Your task to perform on an android device: toggle data saver in the chrome app Image 0: 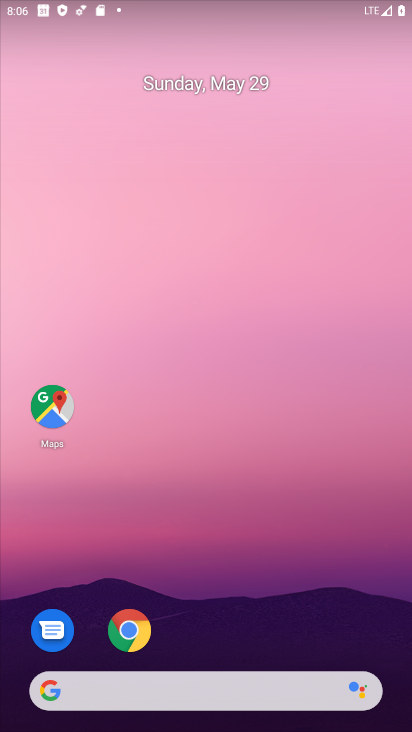
Step 0: click (133, 623)
Your task to perform on an android device: toggle data saver in the chrome app Image 1: 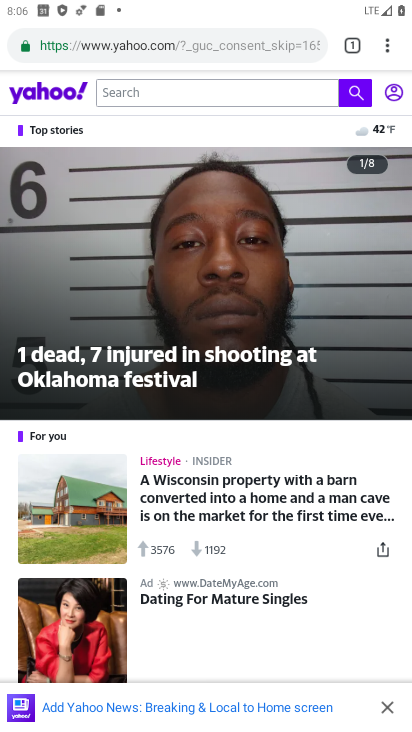
Step 1: click (387, 49)
Your task to perform on an android device: toggle data saver in the chrome app Image 2: 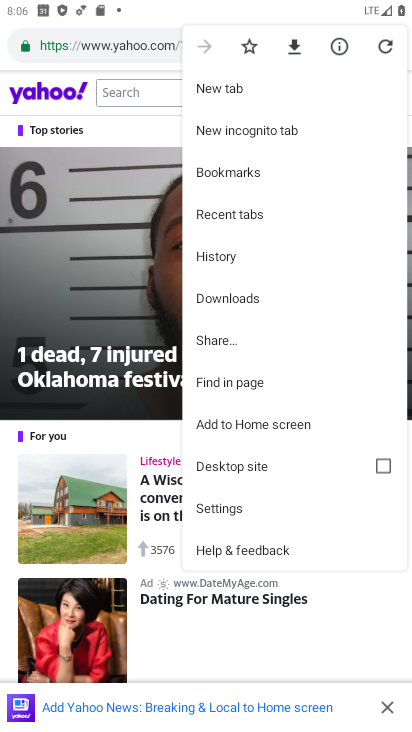
Step 2: click (206, 501)
Your task to perform on an android device: toggle data saver in the chrome app Image 3: 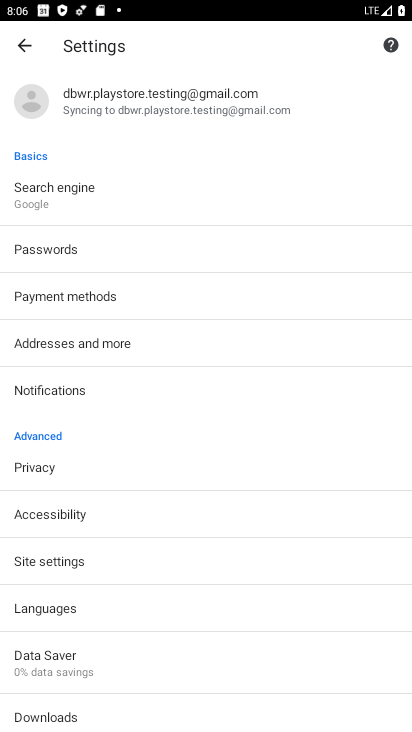
Step 3: click (69, 662)
Your task to perform on an android device: toggle data saver in the chrome app Image 4: 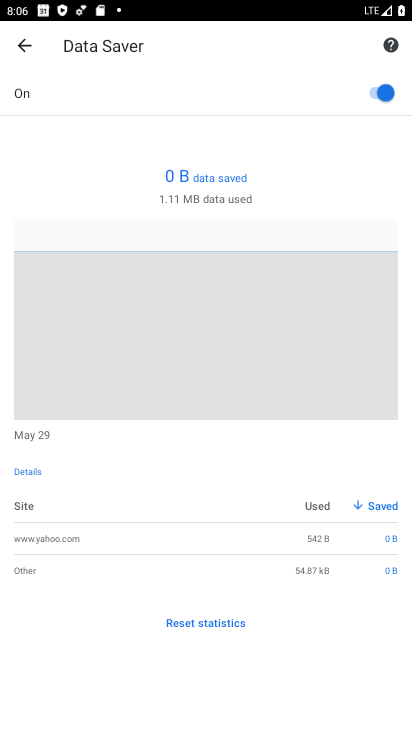
Step 4: click (381, 111)
Your task to perform on an android device: toggle data saver in the chrome app Image 5: 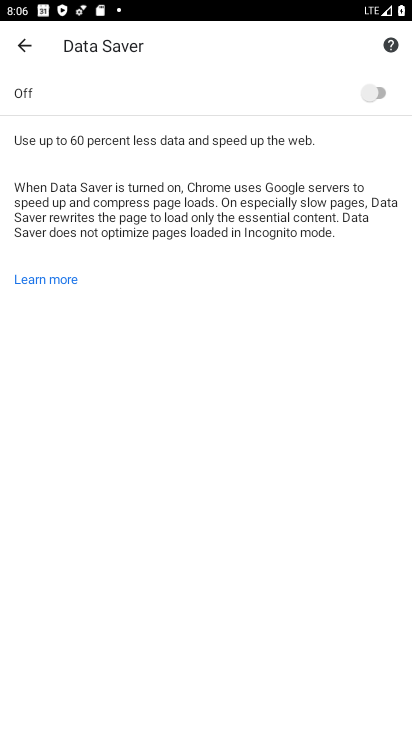
Step 5: task complete